Your task to perform on an android device: turn notification dots off Image 0: 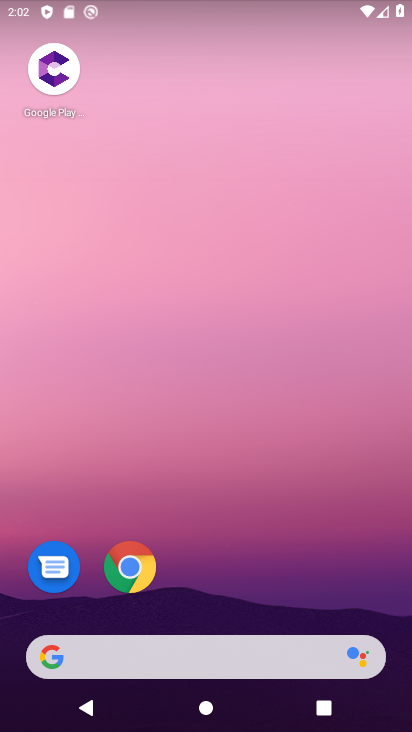
Step 0: drag from (236, 533) to (288, 106)
Your task to perform on an android device: turn notification dots off Image 1: 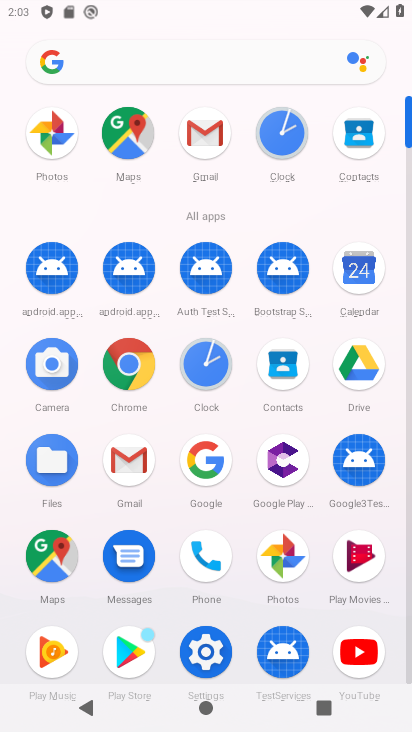
Step 1: click (193, 661)
Your task to perform on an android device: turn notification dots off Image 2: 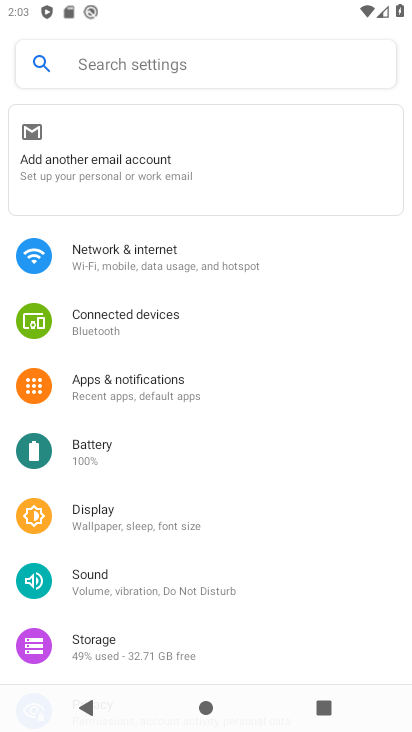
Step 2: click (131, 404)
Your task to perform on an android device: turn notification dots off Image 3: 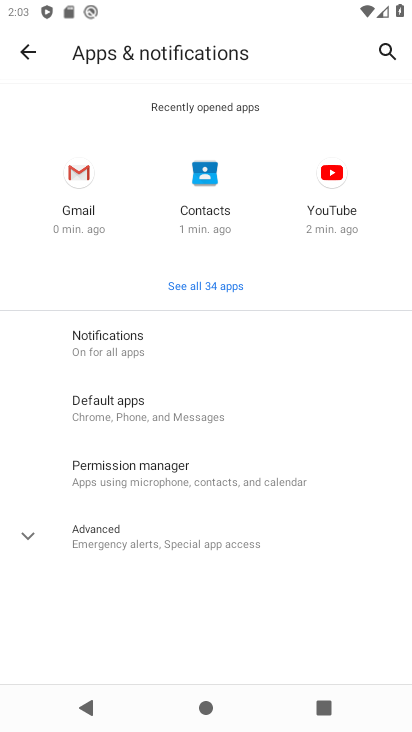
Step 3: click (149, 322)
Your task to perform on an android device: turn notification dots off Image 4: 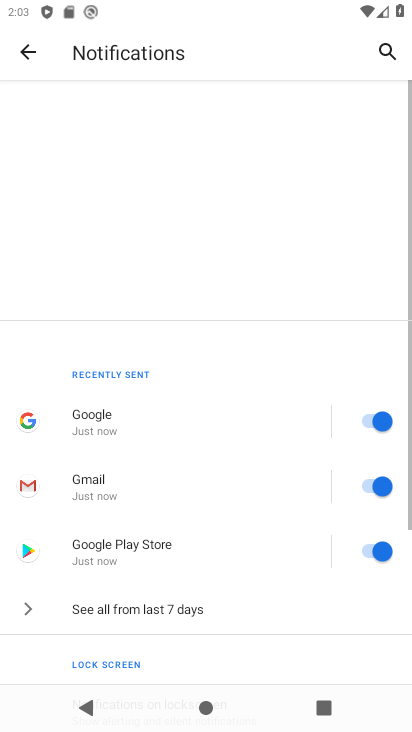
Step 4: drag from (205, 667) to (282, 72)
Your task to perform on an android device: turn notification dots off Image 5: 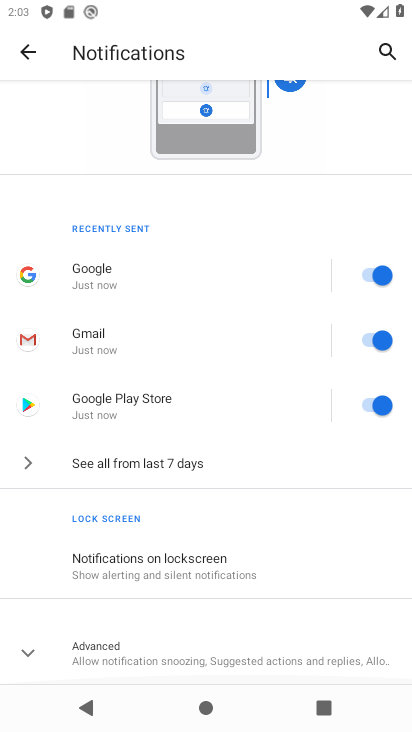
Step 5: click (149, 636)
Your task to perform on an android device: turn notification dots off Image 6: 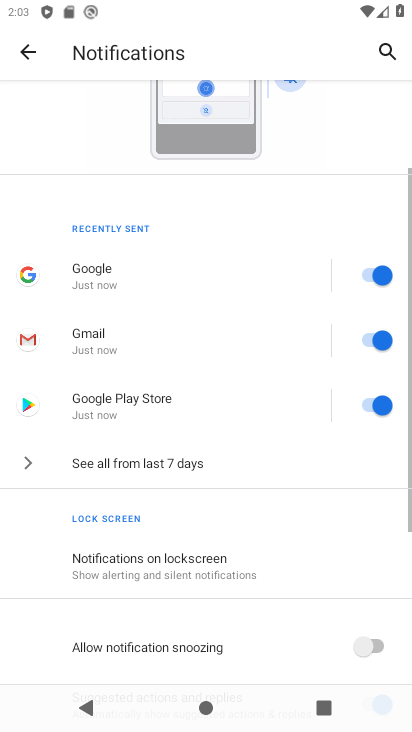
Step 6: drag from (177, 632) to (291, 120)
Your task to perform on an android device: turn notification dots off Image 7: 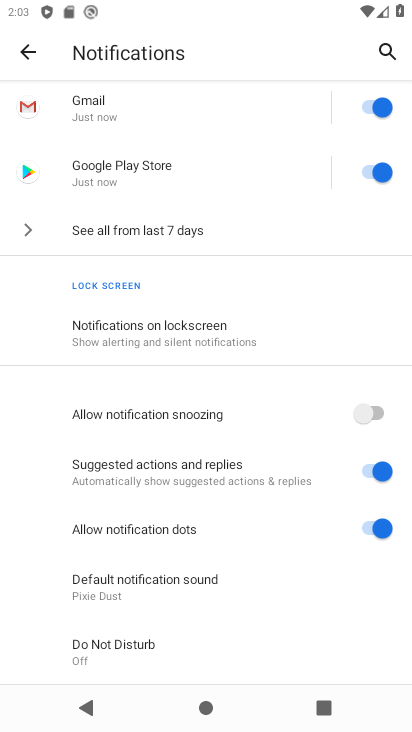
Step 7: click (376, 526)
Your task to perform on an android device: turn notification dots off Image 8: 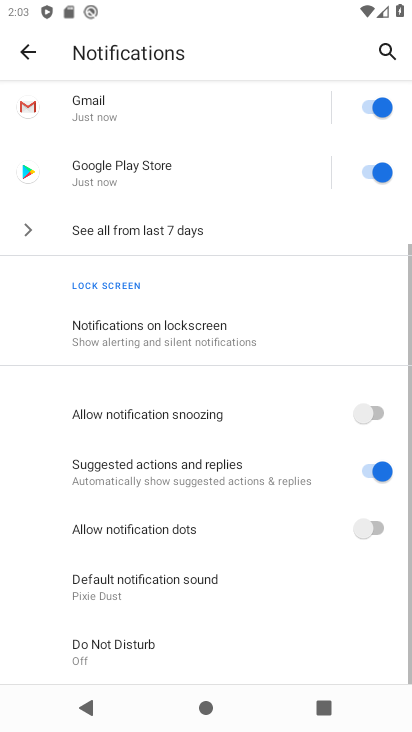
Step 8: task complete